Your task to perform on an android device: remove spam from my inbox in the gmail app Image 0: 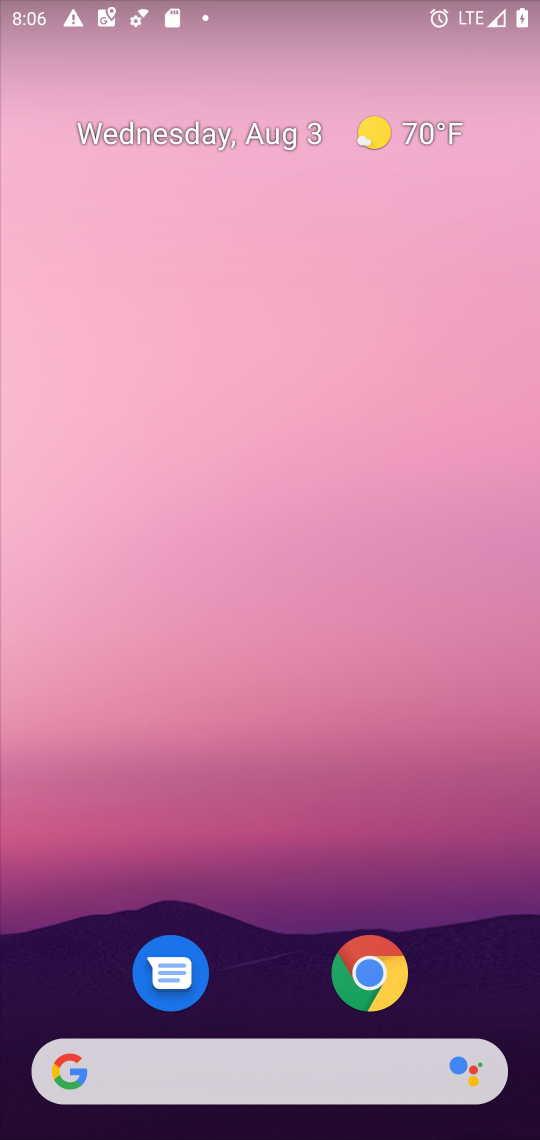
Step 0: drag from (268, 1014) to (302, 96)
Your task to perform on an android device: remove spam from my inbox in the gmail app Image 1: 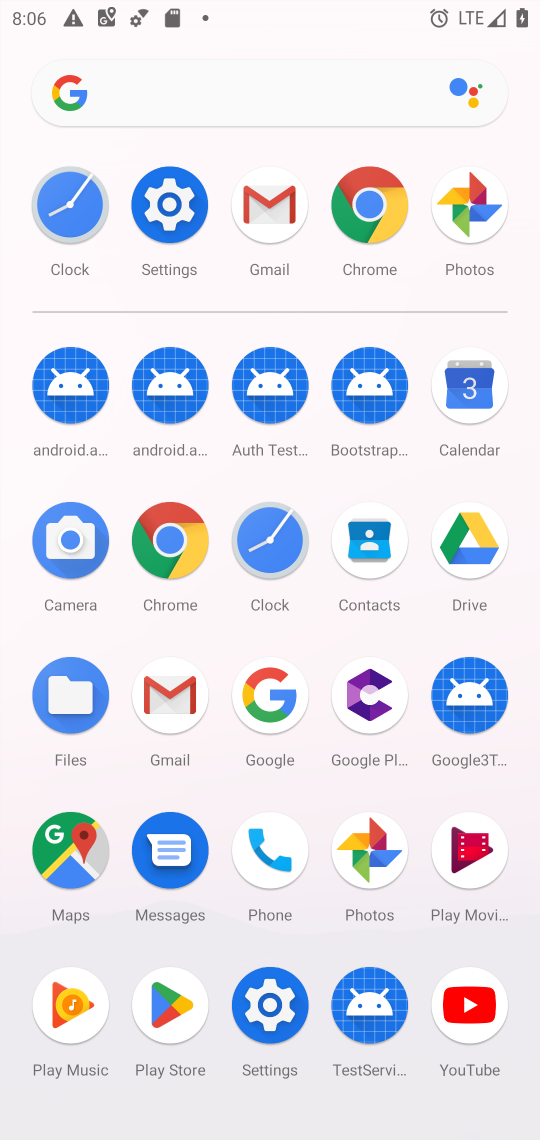
Step 1: click (166, 687)
Your task to perform on an android device: remove spam from my inbox in the gmail app Image 2: 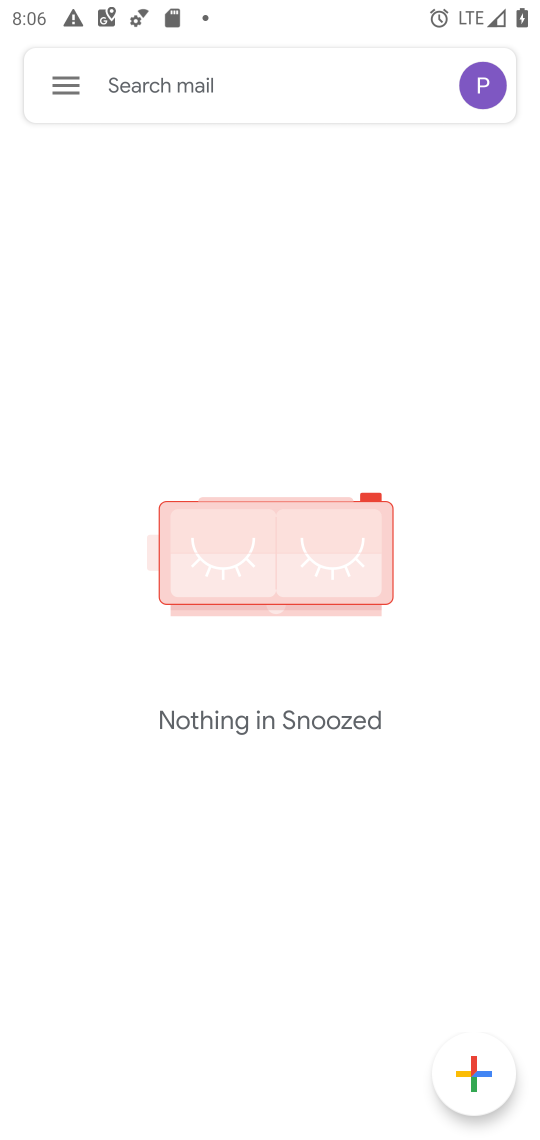
Step 2: click (68, 83)
Your task to perform on an android device: remove spam from my inbox in the gmail app Image 3: 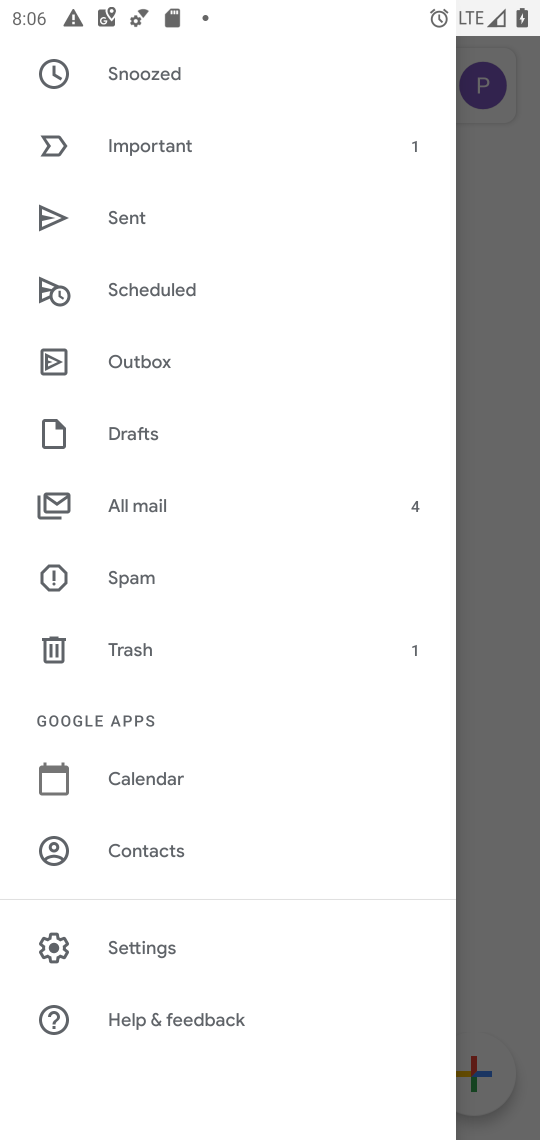
Step 3: click (160, 570)
Your task to perform on an android device: remove spam from my inbox in the gmail app Image 4: 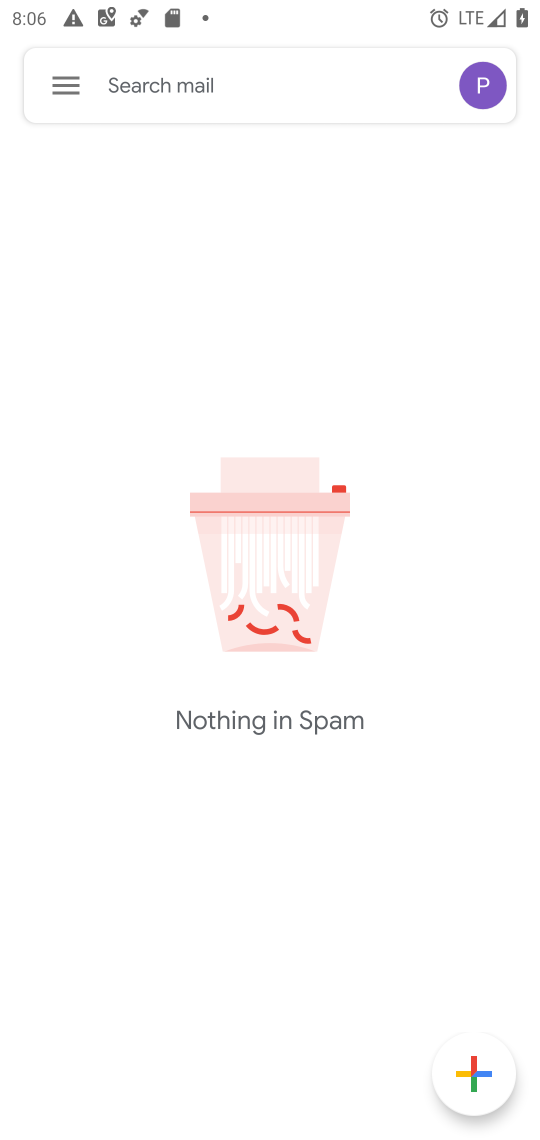
Step 4: task complete